Your task to perform on an android device: turn off translation in the chrome app Image 0: 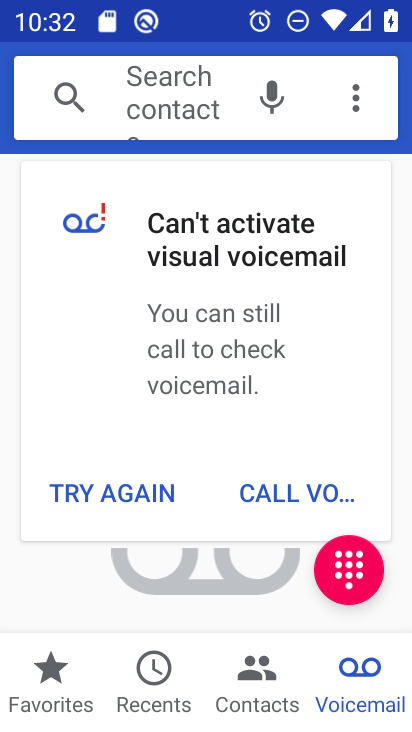
Step 0: press home button
Your task to perform on an android device: turn off translation in the chrome app Image 1: 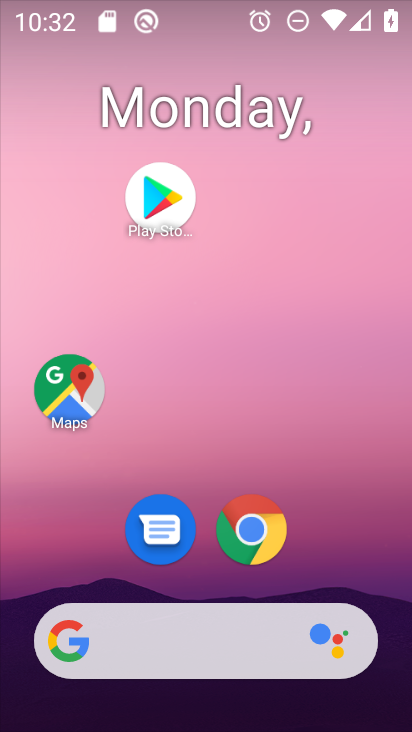
Step 1: click (255, 532)
Your task to perform on an android device: turn off translation in the chrome app Image 2: 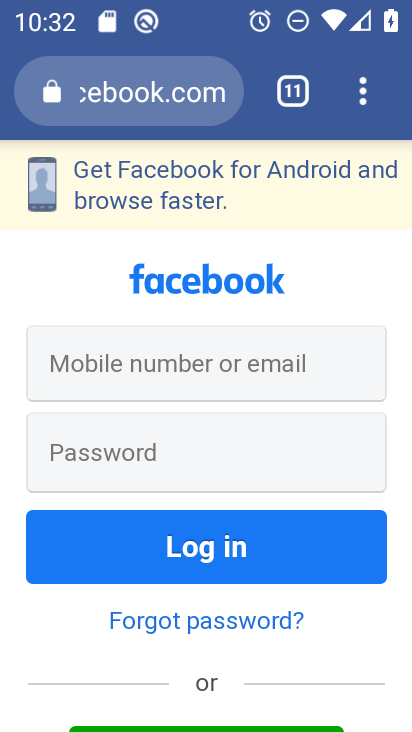
Step 2: click (360, 89)
Your task to perform on an android device: turn off translation in the chrome app Image 3: 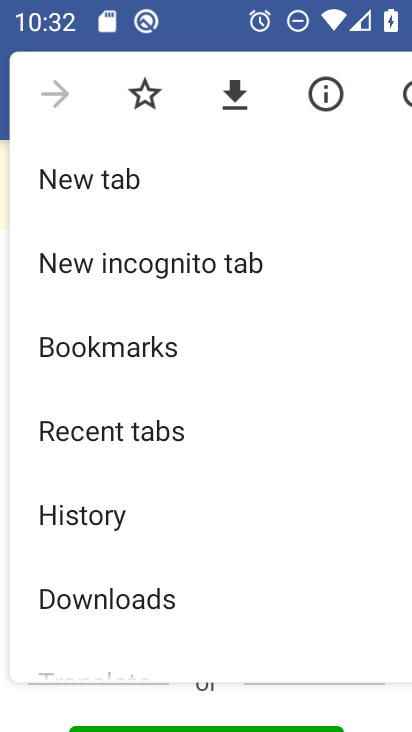
Step 3: click (96, 180)
Your task to perform on an android device: turn off translation in the chrome app Image 4: 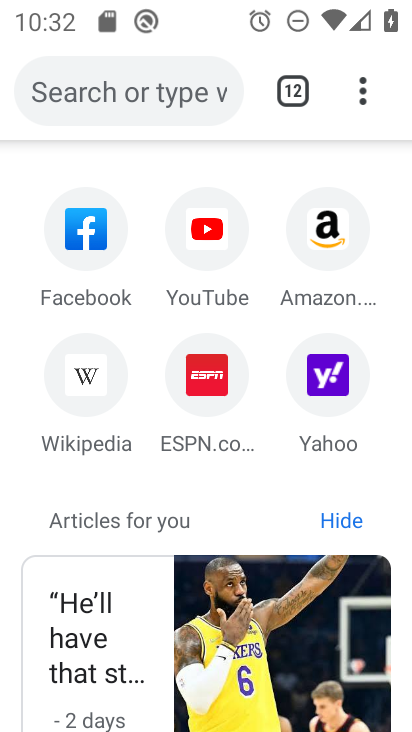
Step 4: click (362, 103)
Your task to perform on an android device: turn off translation in the chrome app Image 5: 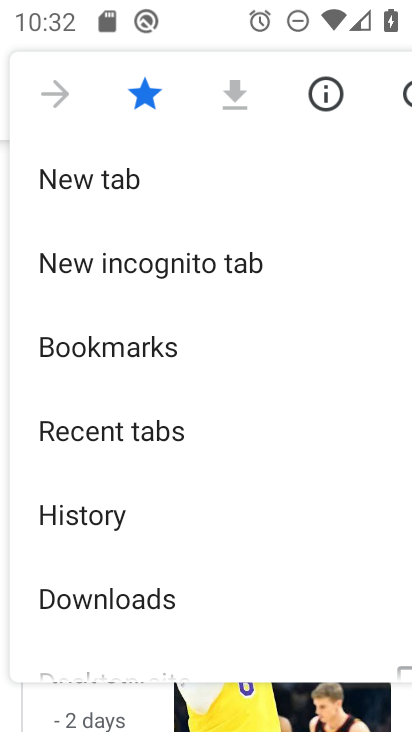
Step 5: drag from (222, 523) to (170, 114)
Your task to perform on an android device: turn off translation in the chrome app Image 6: 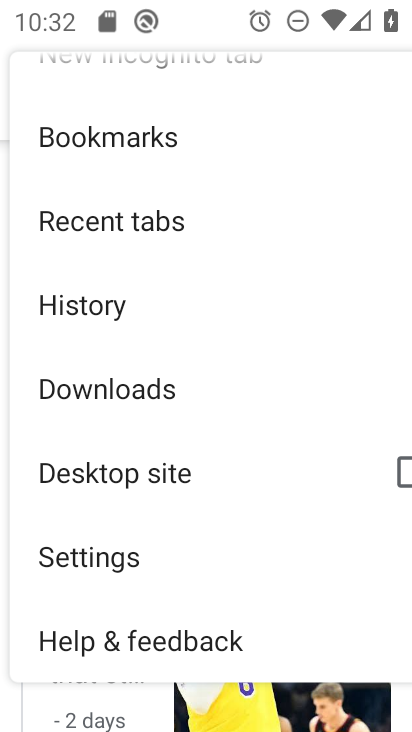
Step 6: click (119, 562)
Your task to perform on an android device: turn off translation in the chrome app Image 7: 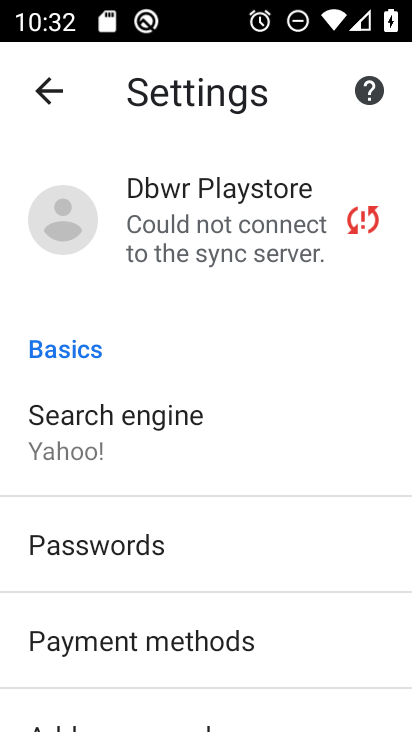
Step 7: drag from (222, 549) to (194, 198)
Your task to perform on an android device: turn off translation in the chrome app Image 8: 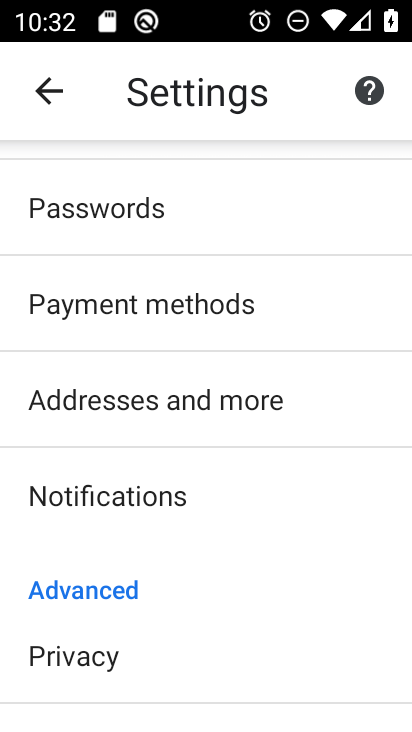
Step 8: drag from (241, 562) to (208, 293)
Your task to perform on an android device: turn off translation in the chrome app Image 9: 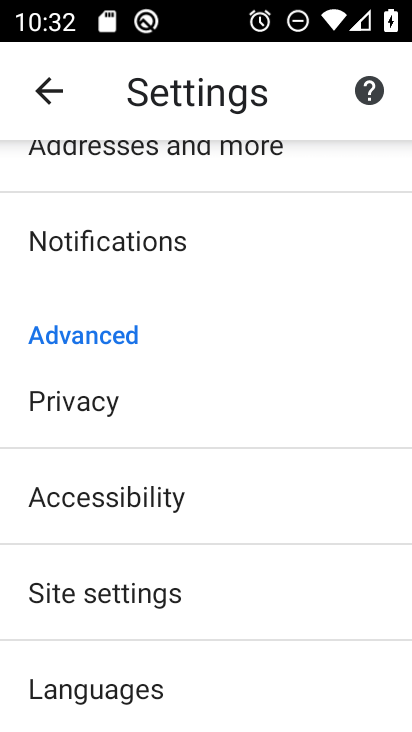
Step 9: drag from (230, 538) to (175, 291)
Your task to perform on an android device: turn off translation in the chrome app Image 10: 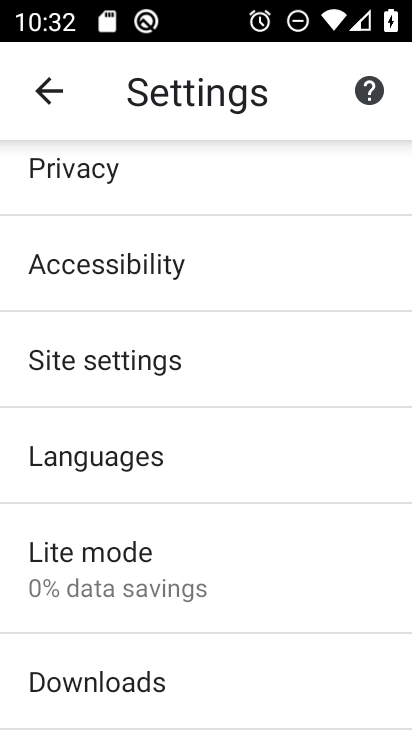
Step 10: click (107, 458)
Your task to perform on an android device: turn off translation in the chrome app Image 11: 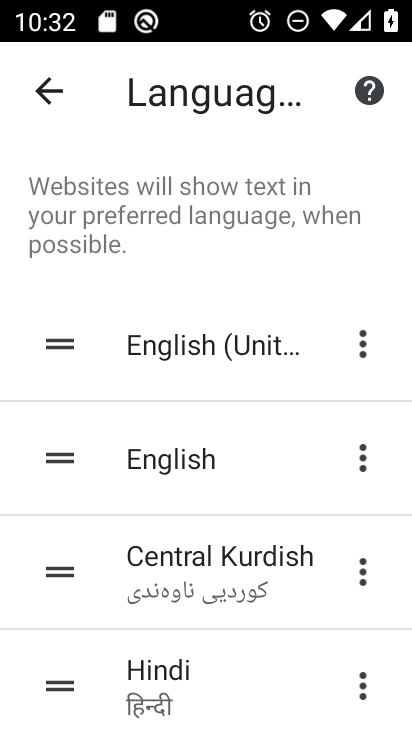
Step 11: drag from (262, 666) to (236, 301)
Your task to perform on an android device: turn off translation in the chrome app Image 12: 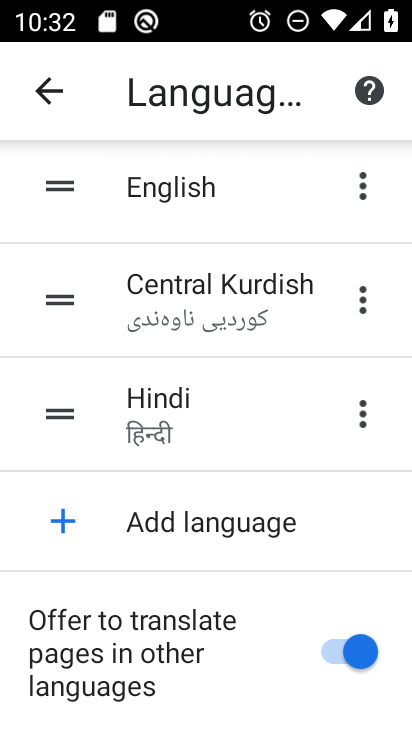
Step 12: click (355, 647)
Your task to perform on an android device: turn off translation in the chrome app Image 13: 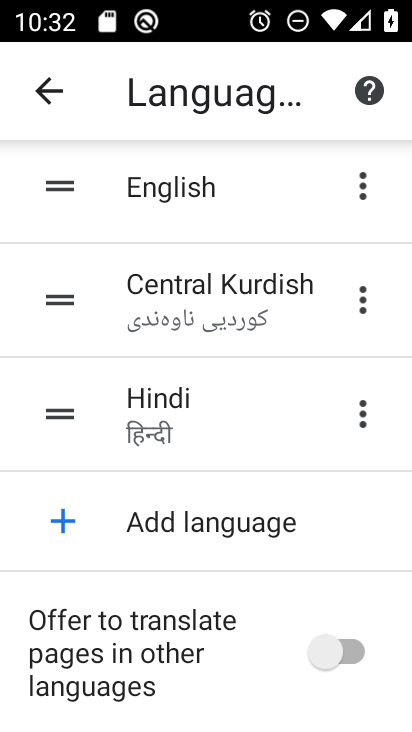
Step 13: task complete